Your task to perform on an android device: Open Wikipedia Image 0: 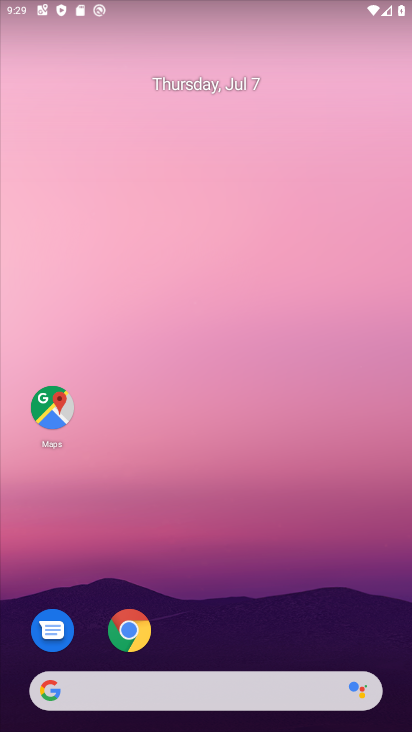
Step 0: drag from (194, 508) to (257, 285)
Your task to perform on an android device: Open Wikipedia Image 1: 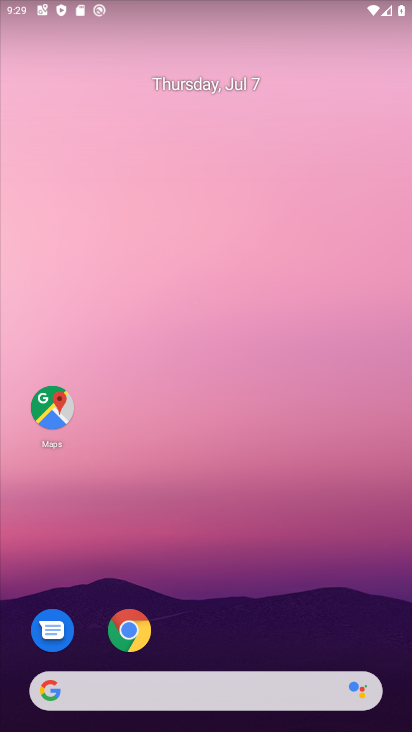
Step 1: drag from (208, 539) to (287, 186)
Your task to perform on an android device: Open Wikipedia Image 2: 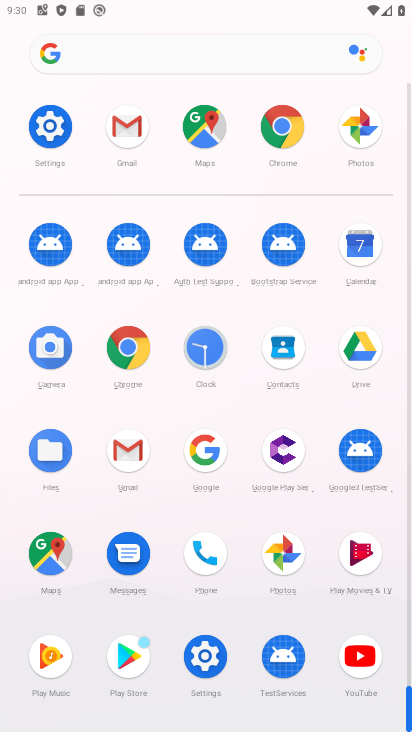
Step 2: click (129, 334)
Your task to perform on an android device: Open Wikipedia Image 3: 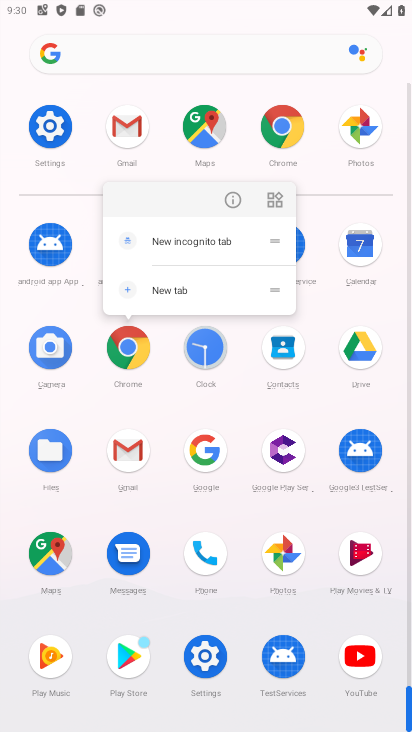
Step 3: click (227, 204)
Your task to perform on an android device: Open Wikipedia Image 4: 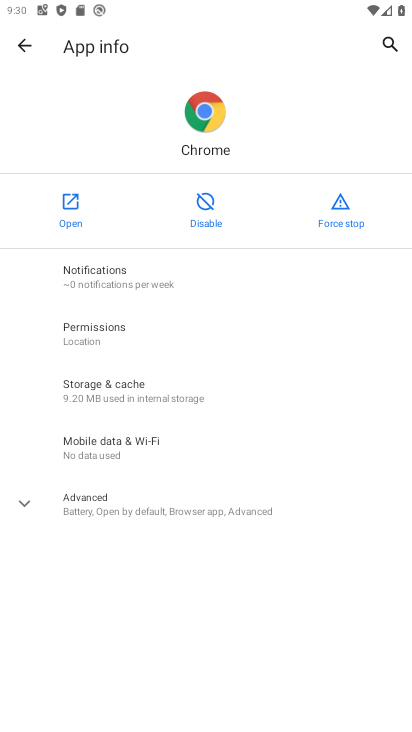
Step 4: click (69, 224)
Your task to perform on an android device: Open Wikipedia Image 5: 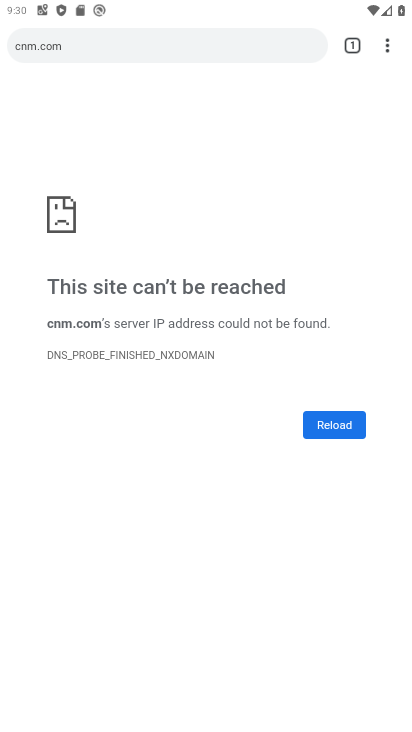
Step 5: click (381, 55)
Your task to perform on an android device: Open Wikipedia Image 6: 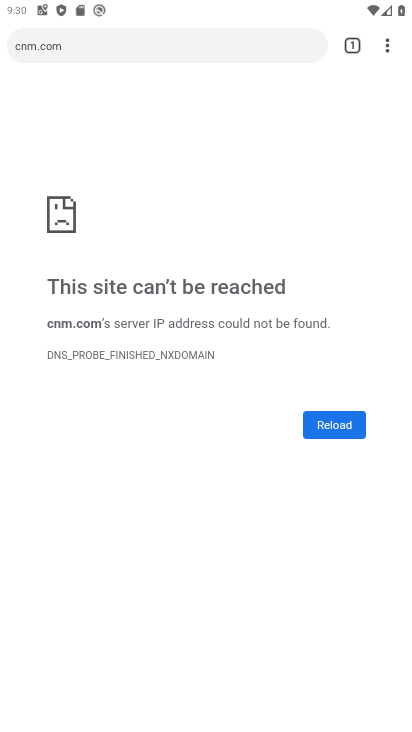
Step 6: task complete